Your task to perform on an android device: What's the weather today? Image 0: 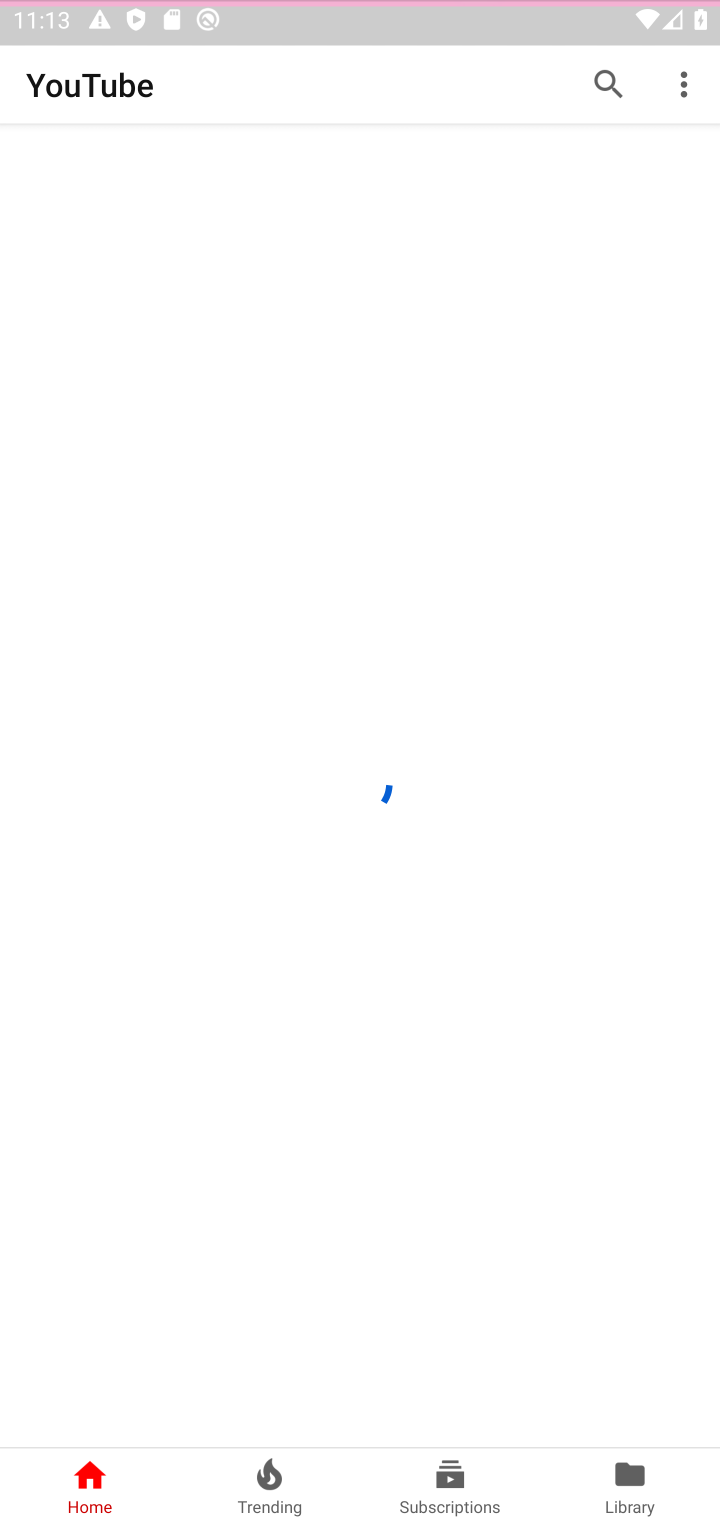
Step 0: press home button
Your task to perform on an android device: What's the weather today? Image 1: 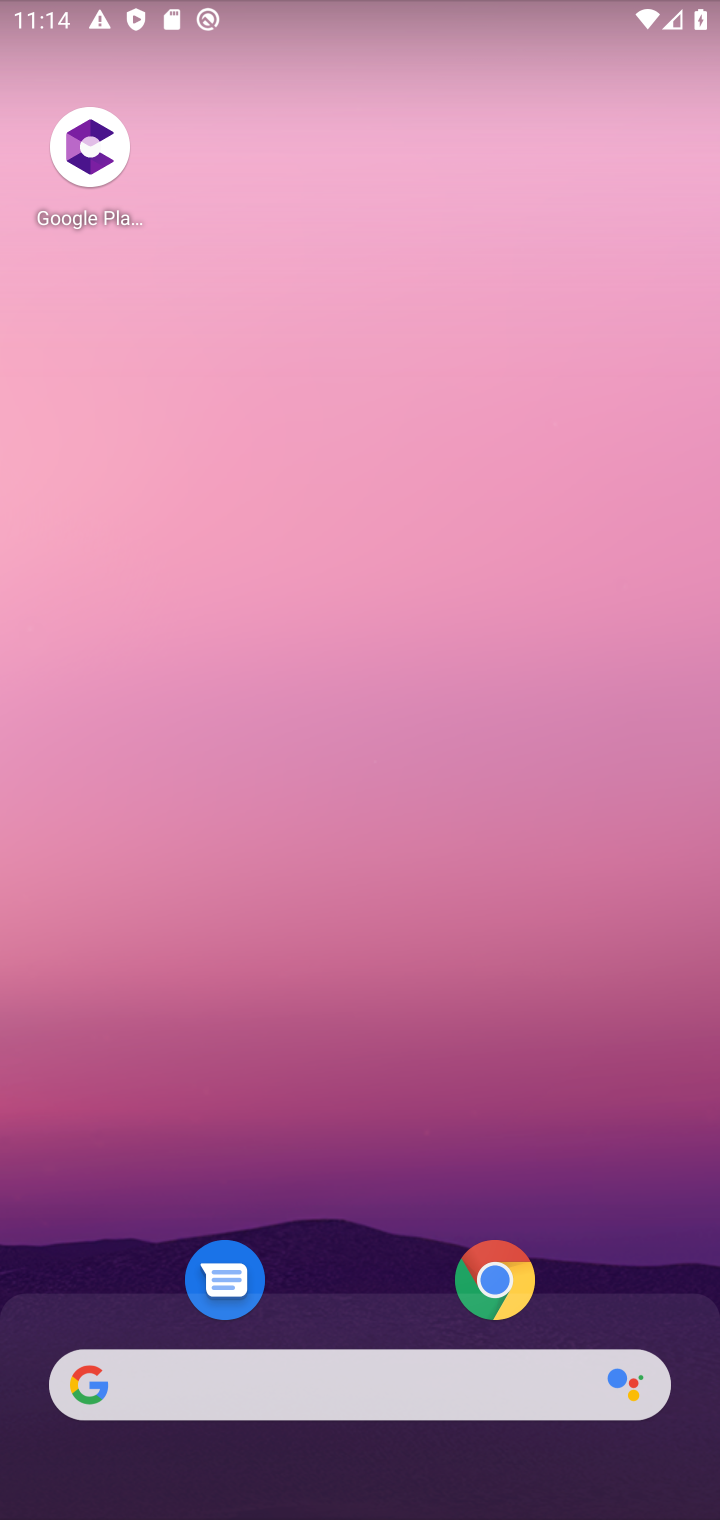
Step 1: drag from (363, 1346) to (325, 158)
Your task to perform on an android device: What's the weather today? Image 2: 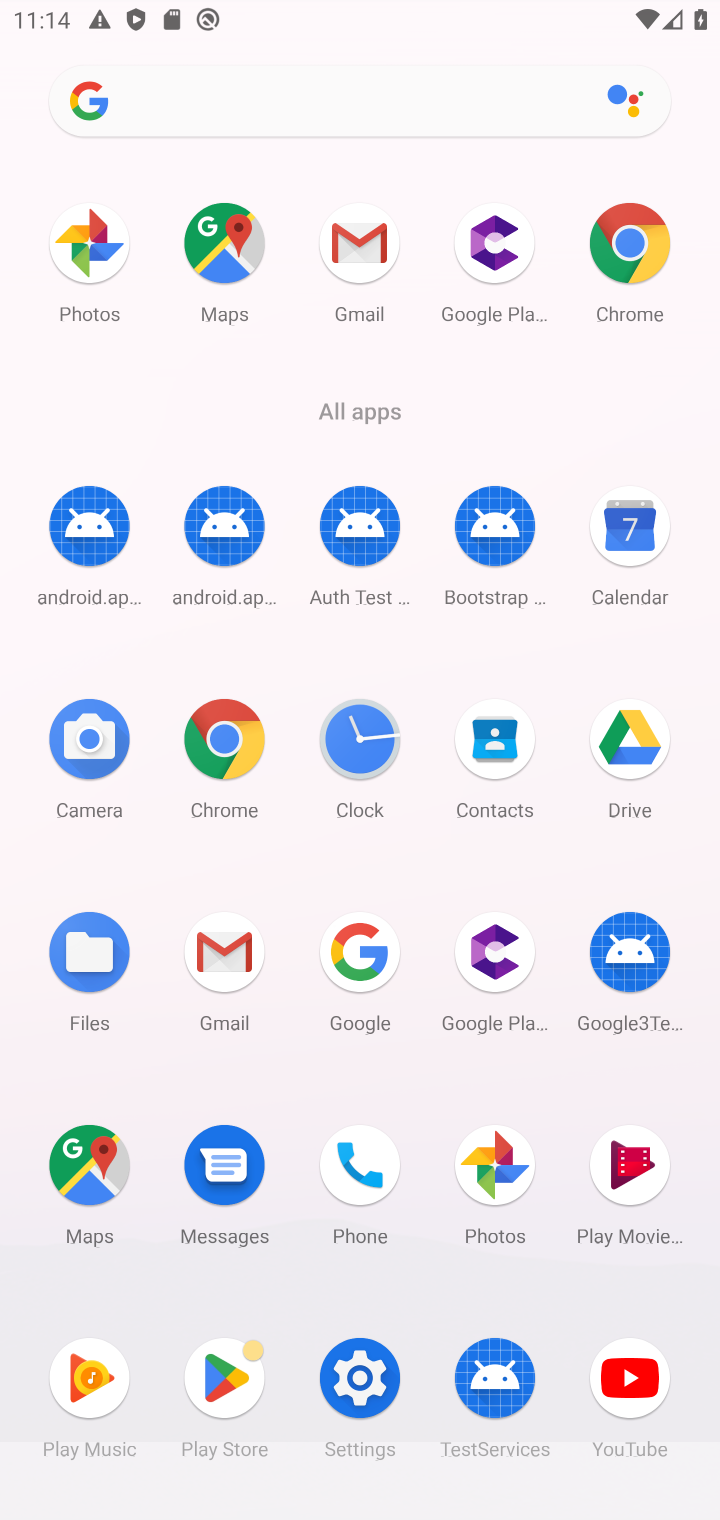
Step 2: click (341, 947)
Your task to perform on an android device: What's the weather today? Image 3: 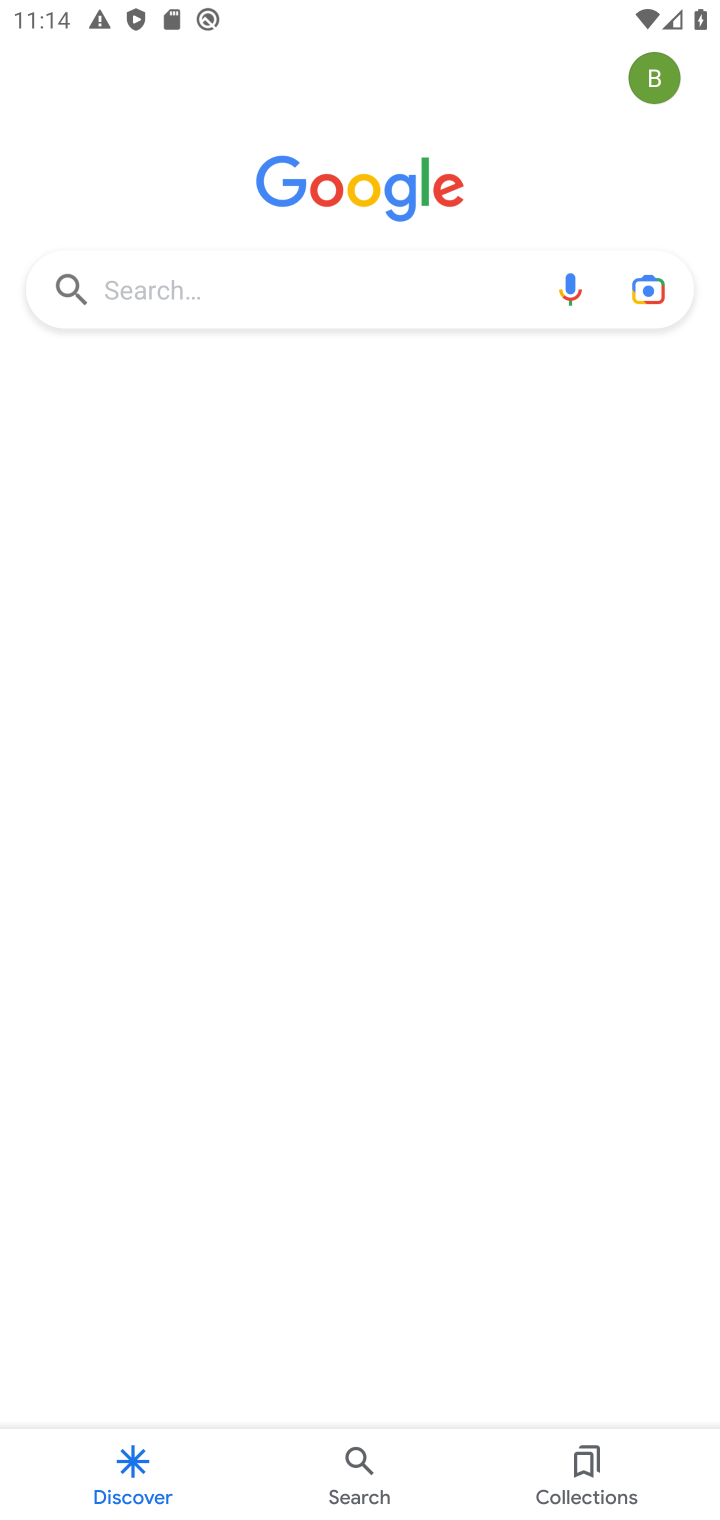
Step 3: click (305, 283)
Your task to perform on an android device: What's the weather today? Image 4: 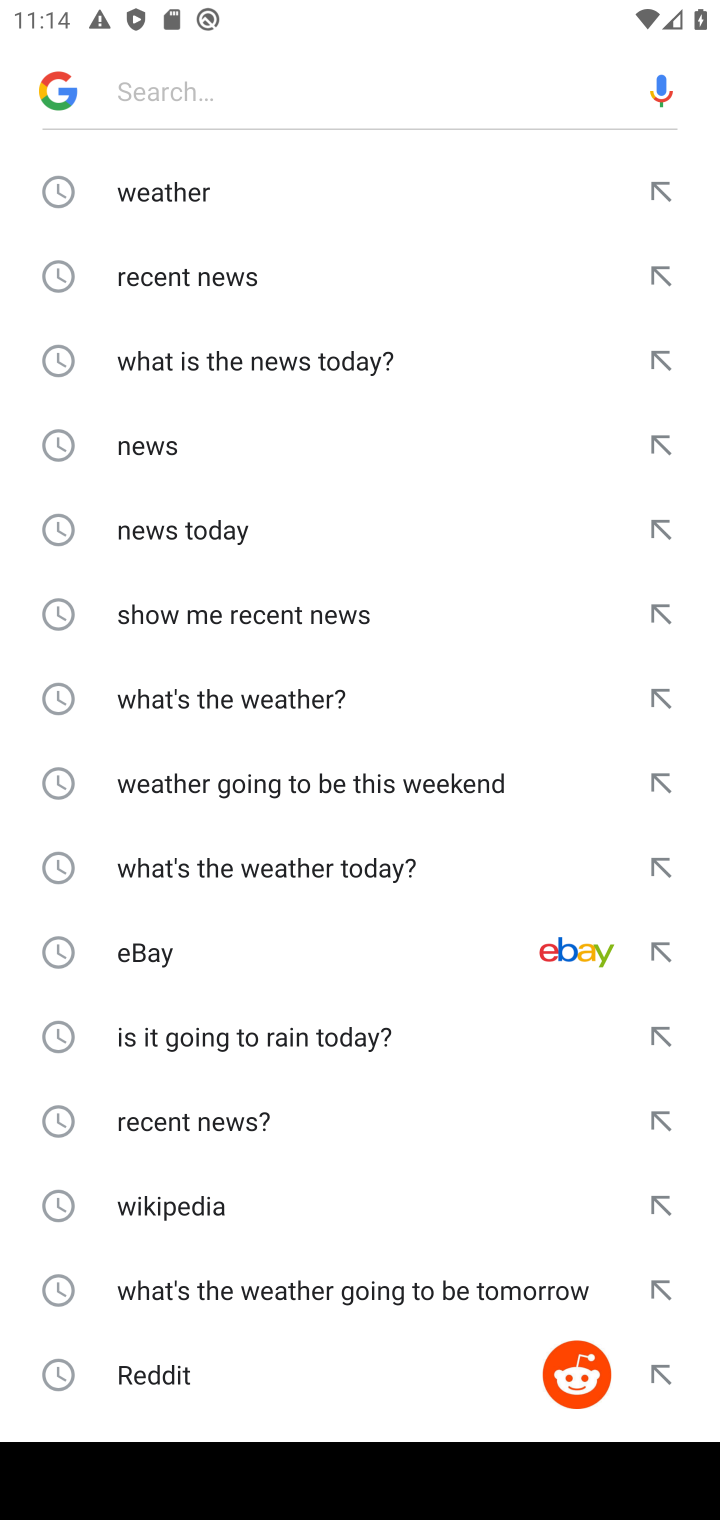
Step 4: click (166, 192)
Your task to perform on an android device: What's the weather today? Image 5: 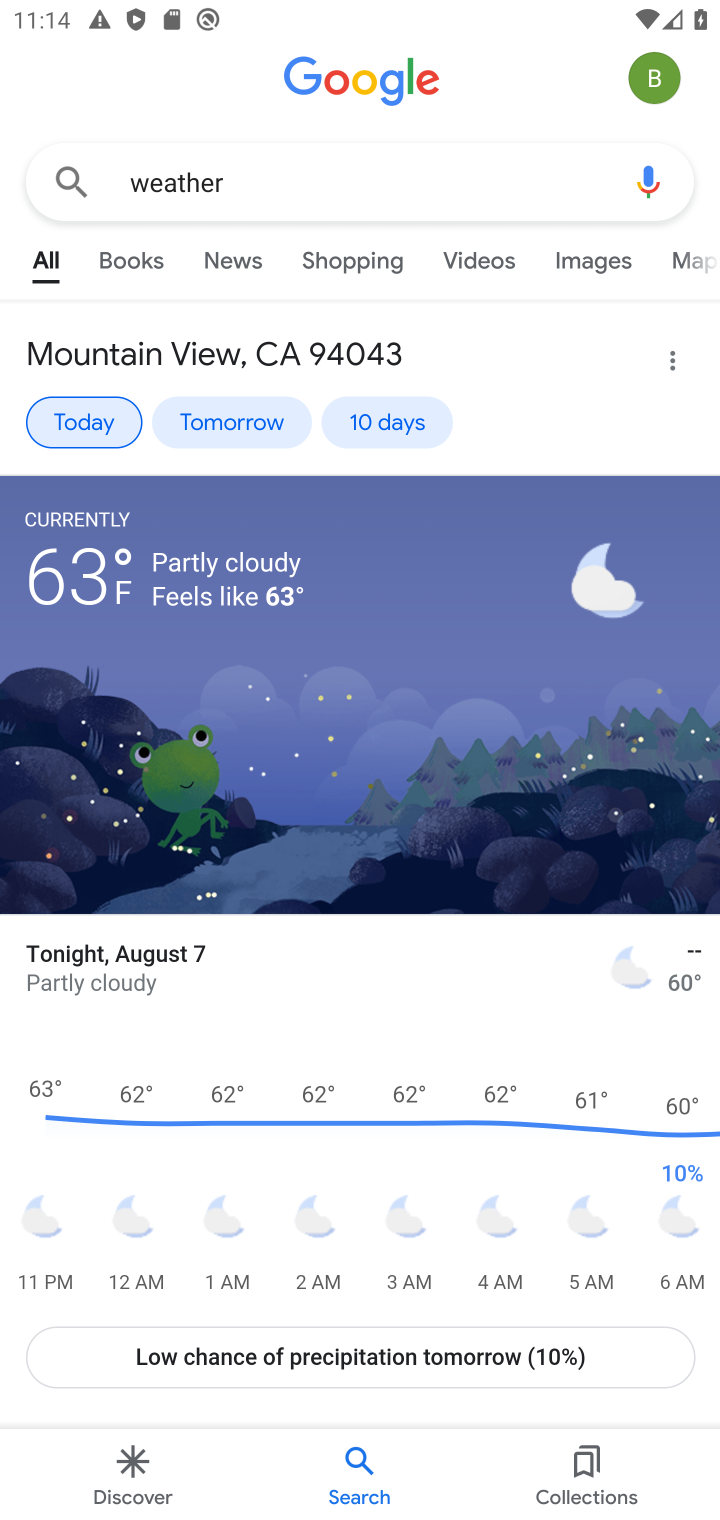
Step 5: click (87, 412)
Your task to perform on an android device: What's the weather today? Image 6: 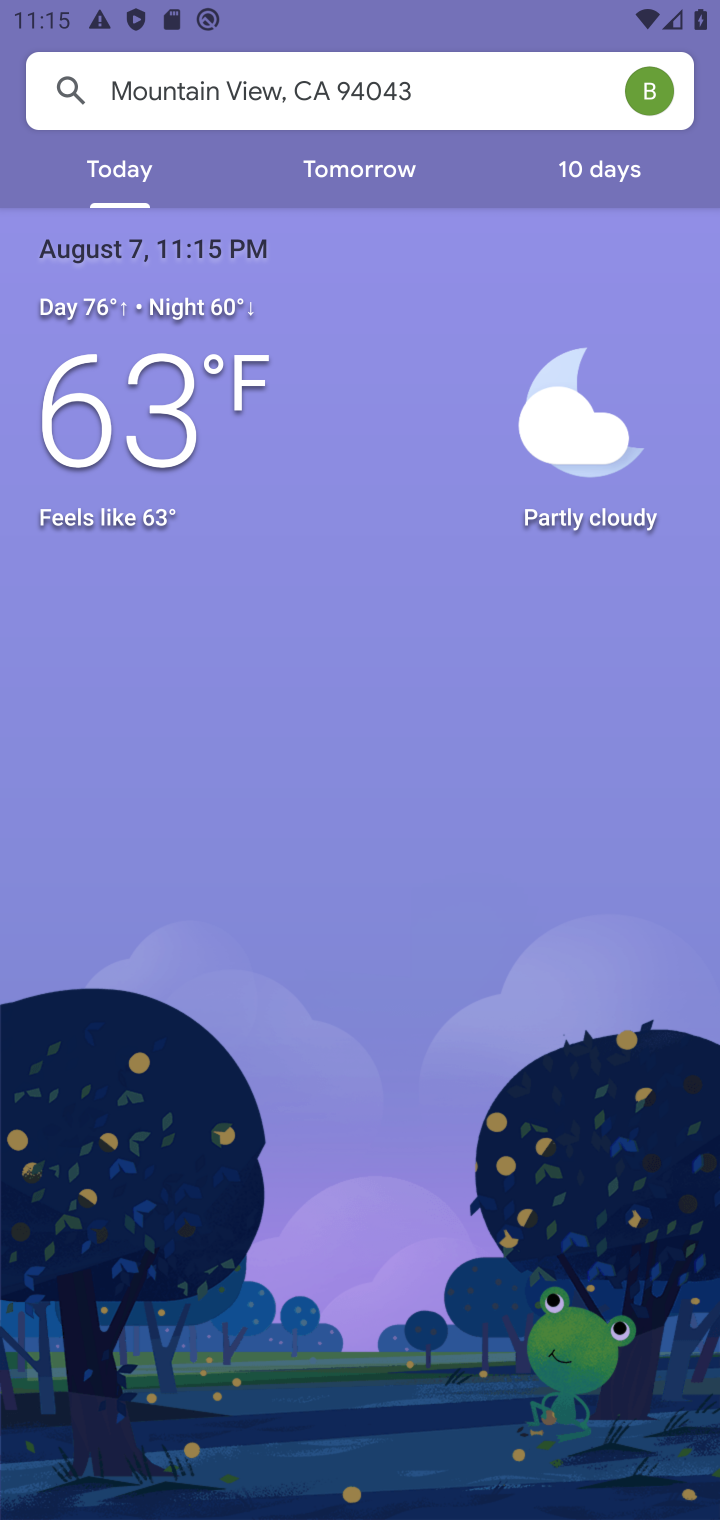
Step 6: task complete